Your task to perform on an android device: Do I have any events tomorrow? Image 0: 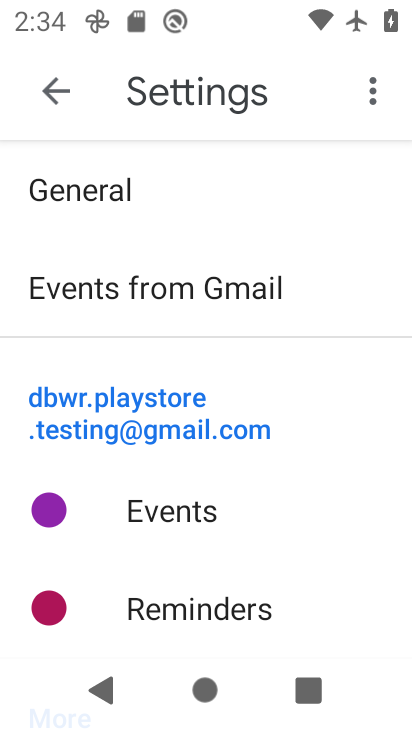
Step 0: press home button
Your task to perform on an android device: Do I have any events tomorrow? Image 1: 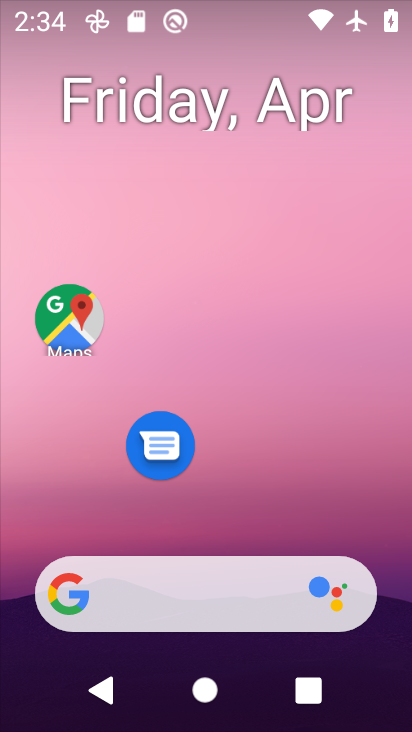
Step 1: drag from (219, 513) to (219, 49)
Your task to perform on an android device: Do I have any events tomorrow? Image 2: 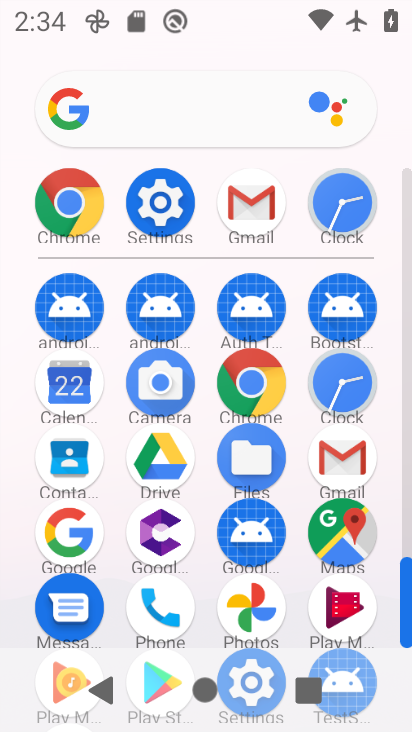
Step 2: click (56, 386)
Your task to perform on an android device: Do I have any events tomorrow? Image 3: 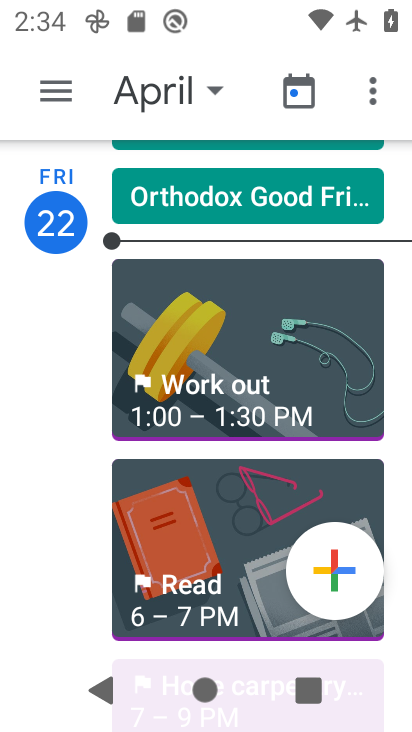
Step 3: click (176, 90)
Your task to perform on an android device: Do I have any events tomorrow? Image 4: 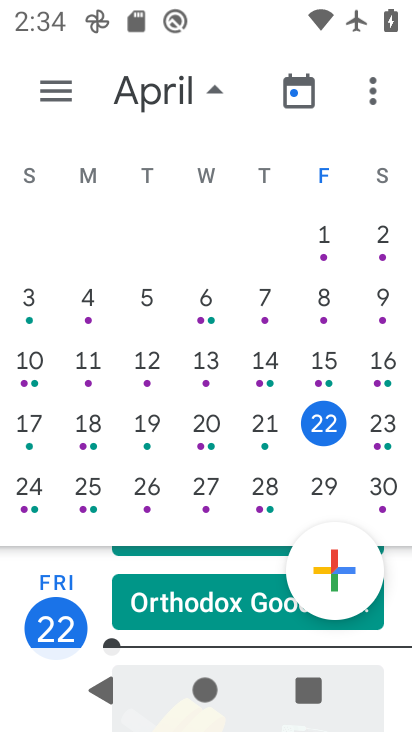
Step 4: click (389, 431)
Your task to perform on an android device: Do I have any events tomorrow? Image 5: 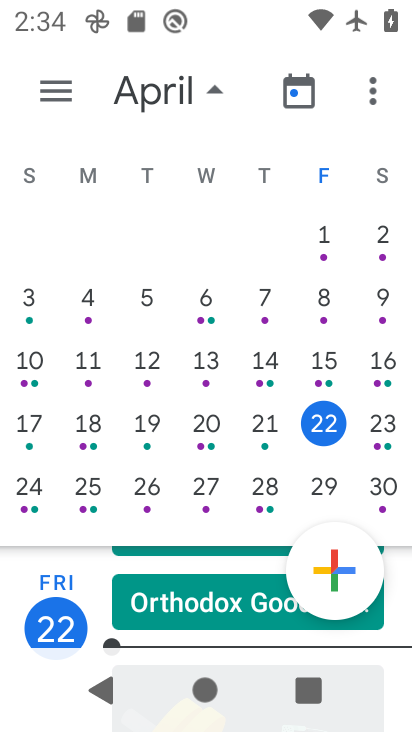
Step 5: click (389, 431)
Your task to perform on an android device: Do I have any events tomorrow? Image 6: 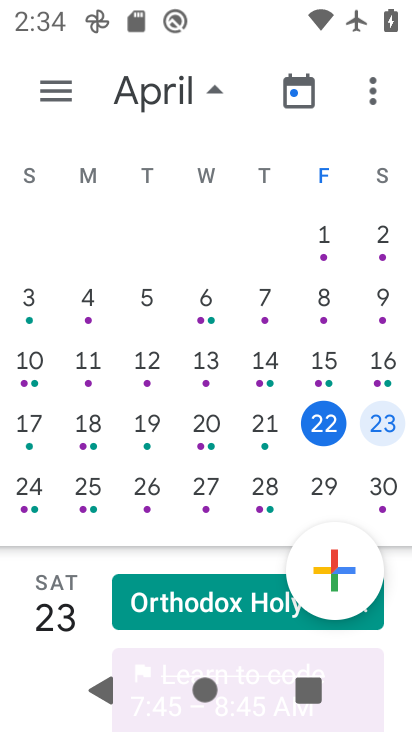
Step 6: task complete